Your task to perform on an android device: toggle sleep mode Image 0: 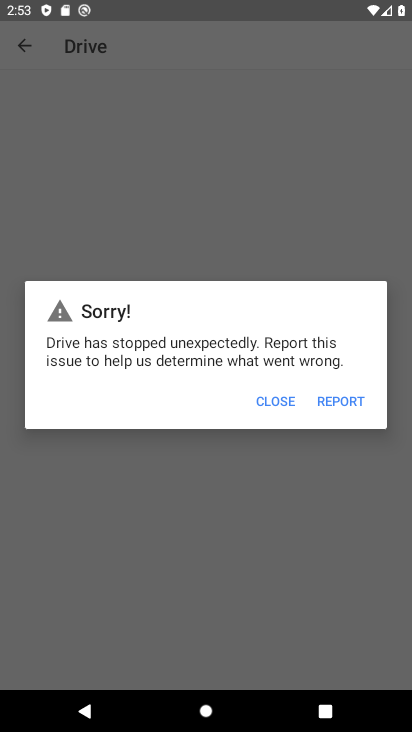
Step 0: press home button
Your task to perform on an android device: toggle sleep mode Image 1: 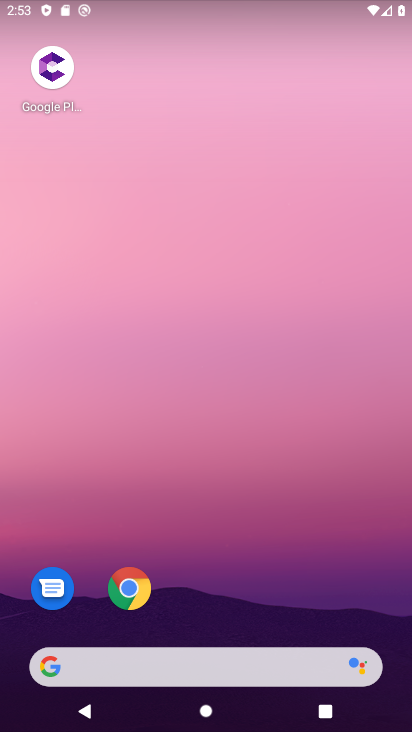
Step 1: drag from (237, 629) to (246, 171)
Your task to perform on an android device: toggle sleep mode Image 2: 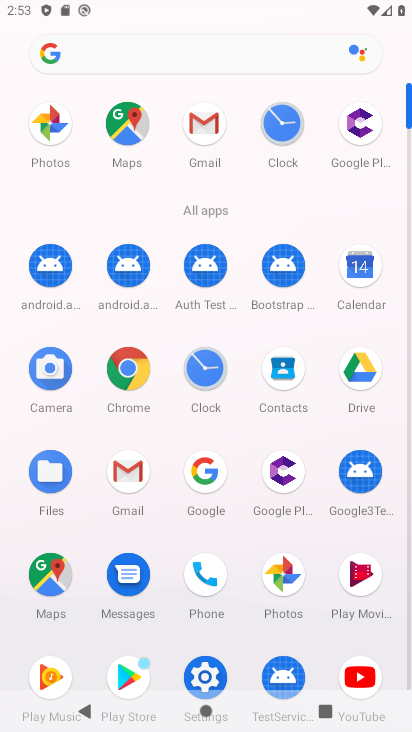
Step 2: click (201, 681)
Your task to perform on an android device: toggle sleep mode Image 3: 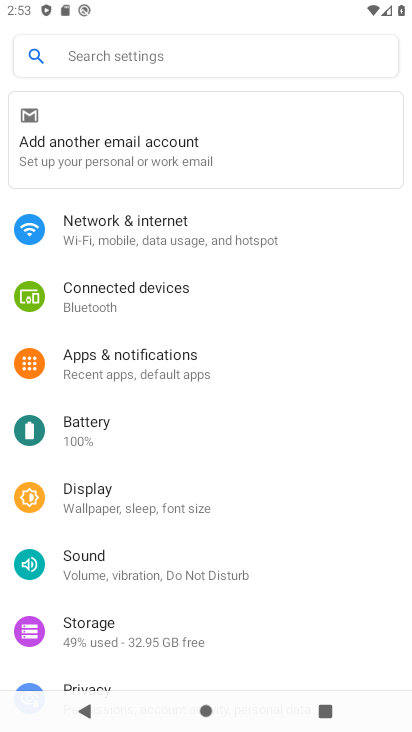
Step 3: click (107, 498)
Your task to perform on an android device: toggle sleep mode Image 4: 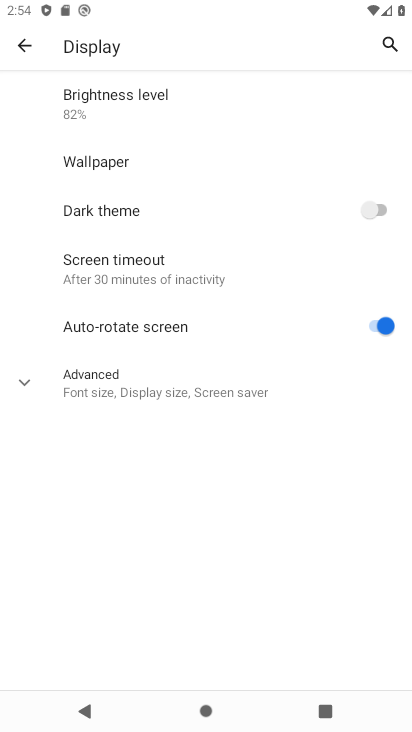
Step 4: click (157, 392)
Your task to perform on an android device: toggle sleep mode Image 5: 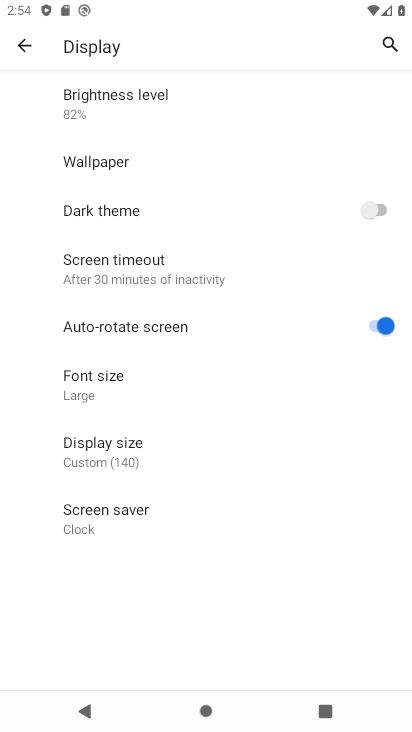
Step 5: task complete